Your task to perform on an android device: Empty the shopping cart on bestbuy. Image 0: 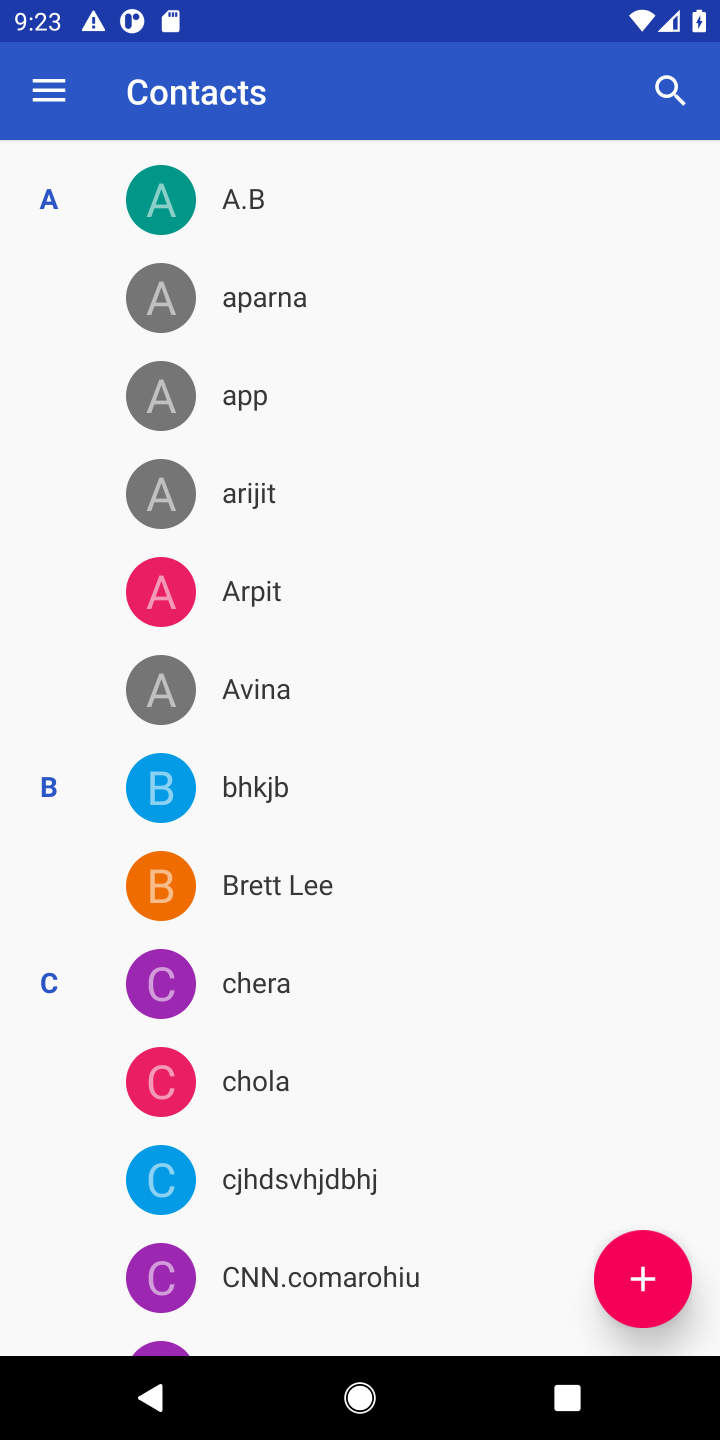
Step 0: press home button
Your task to perform on an android device: Empty the shopping cart on bestbuy. Image 1: 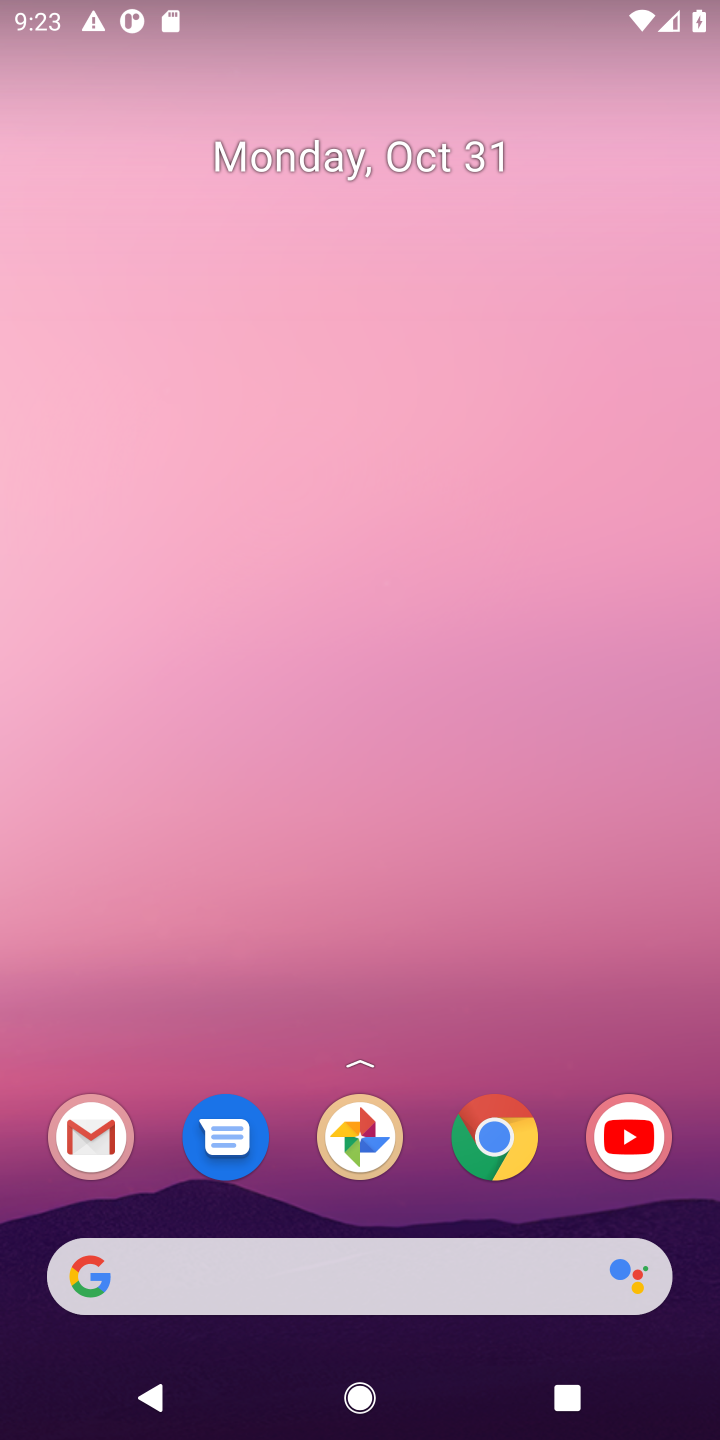
Step 1: click (505, 1146)
Your task to perform on an android device: Empty the shopping cart on bestbuy. Image 2: 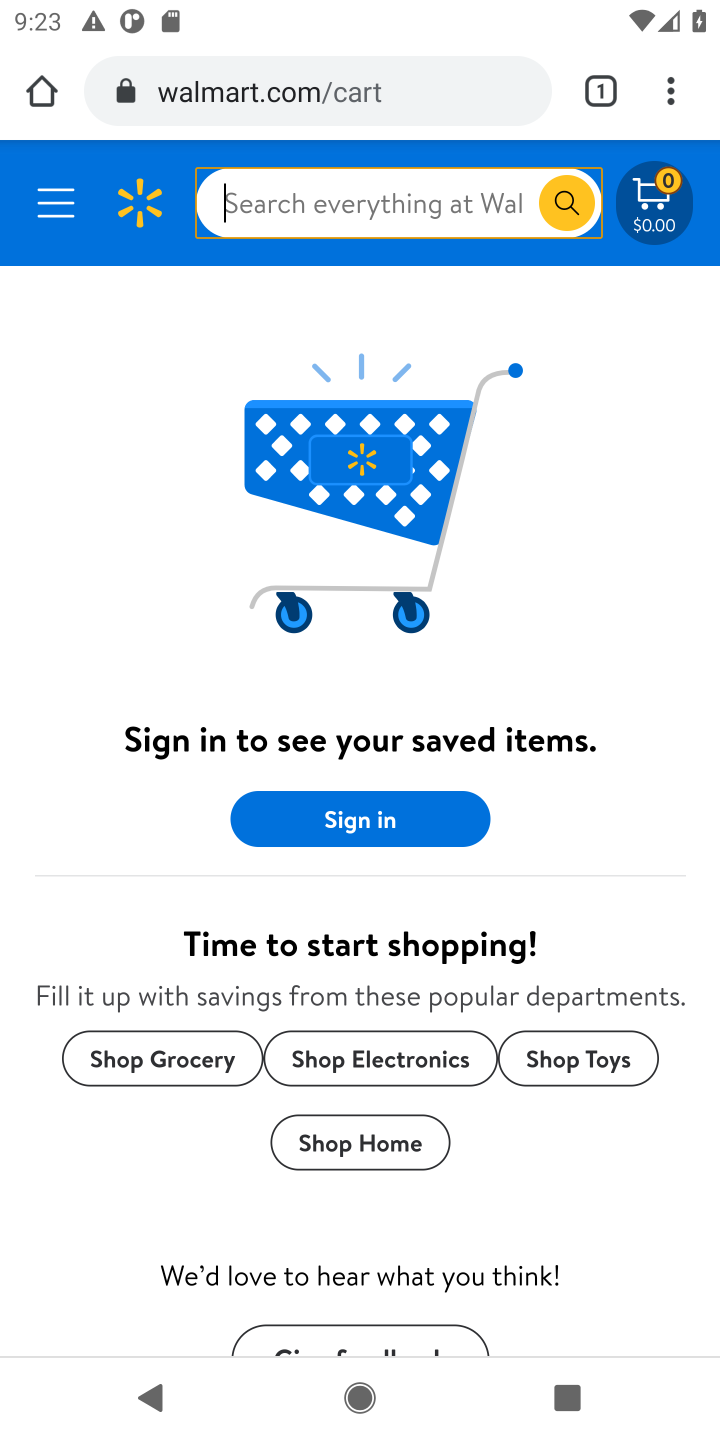
Step 2: click (313, 98)
Your task to perform on an android device: Empty the shopping cart on bestbuy. Image 3: 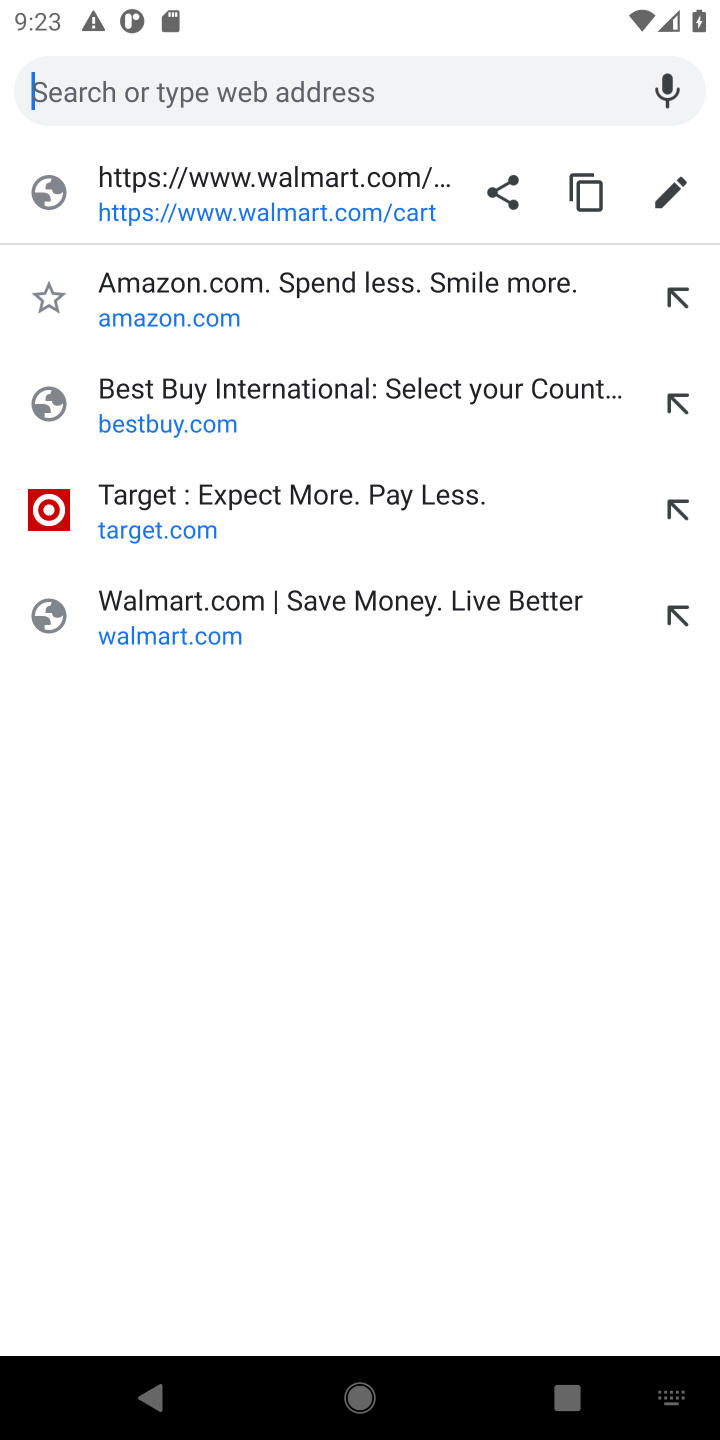
Step 3: type "bestbuy"
Your task to perform on an android device: Empty the shopping cart on bestbuy. Image 4: 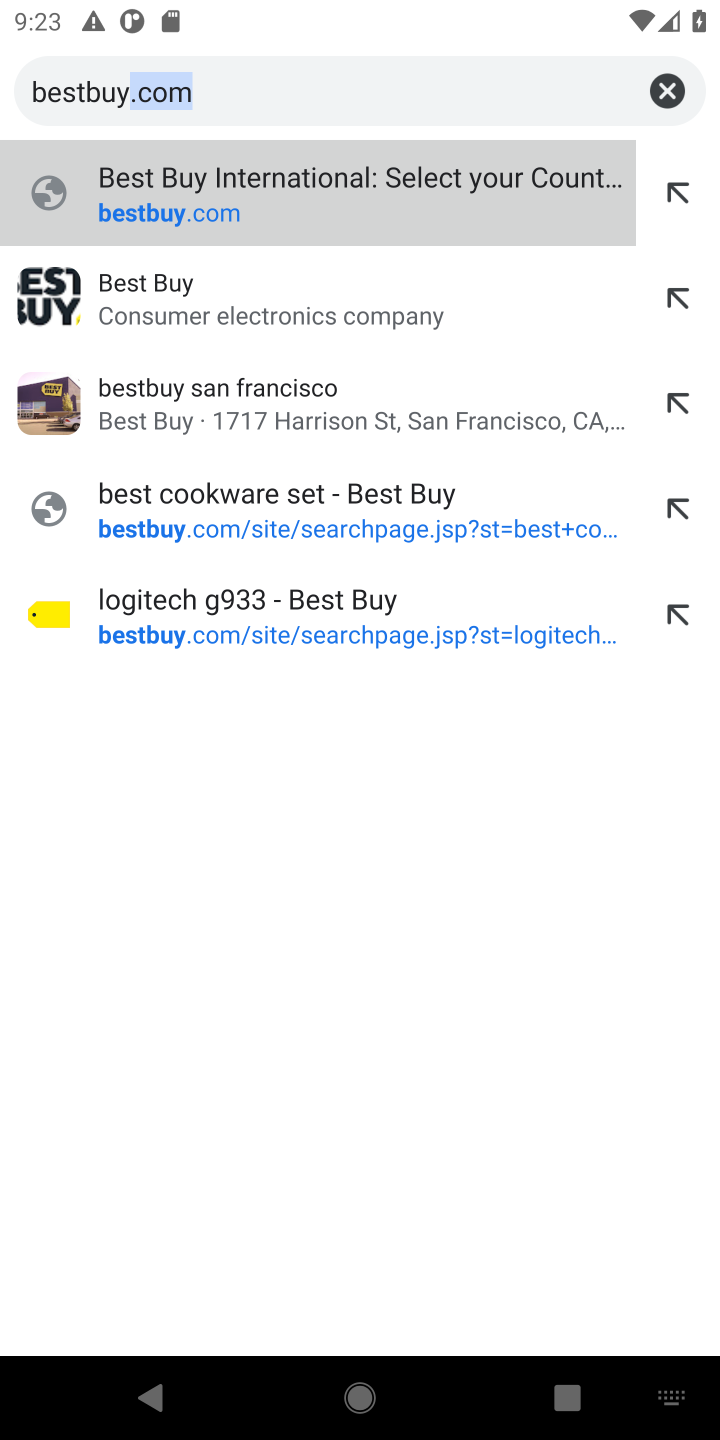
Step 4: click (160, 198)
Your task to perform on an android device: Empty the shopping cart on bestbuy. Image 5: 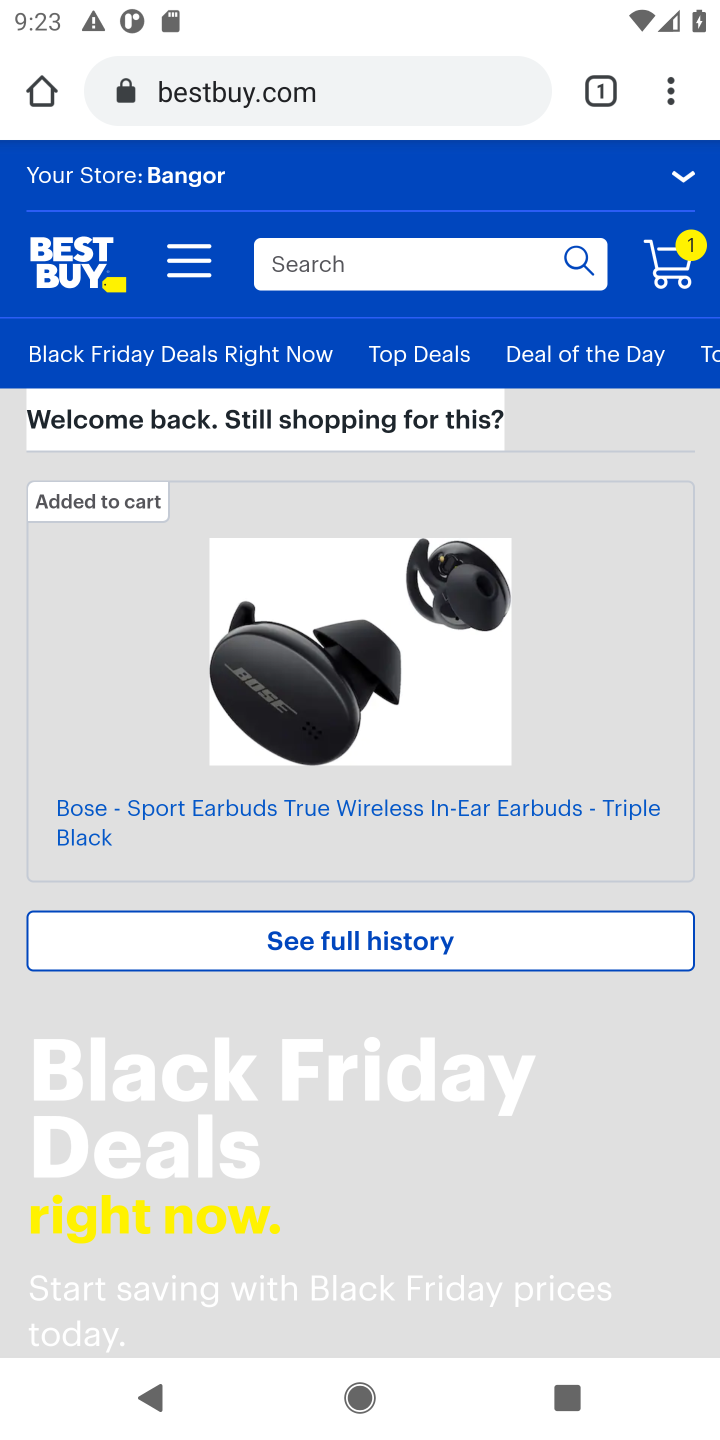
Step 5: click (669, 260)
Your task to perform on an android device: Empty the shopping cart on bestbuy. Image 6: 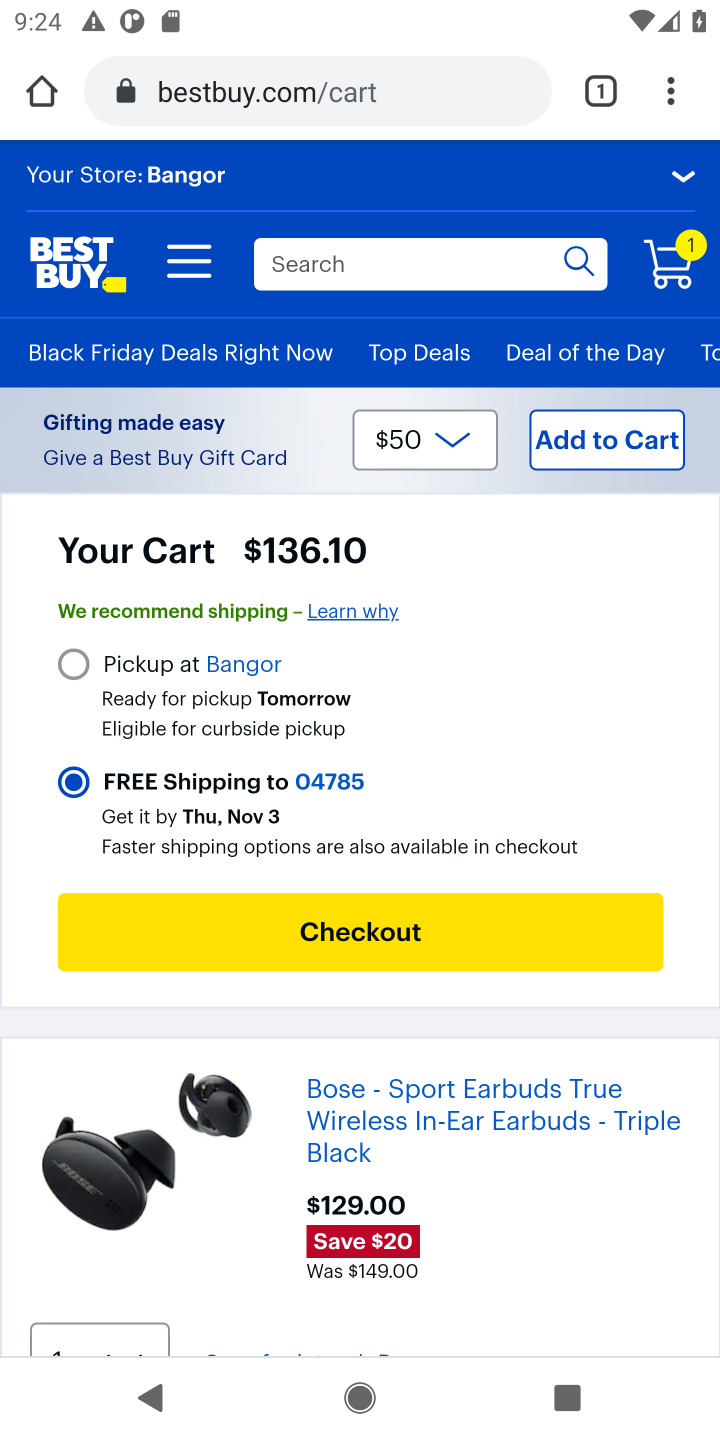
Step 6: drag from (396, 788) to (406, 546)
Your task to perform on an android device: Empty the shopping cart on bestbuy. Image 7: 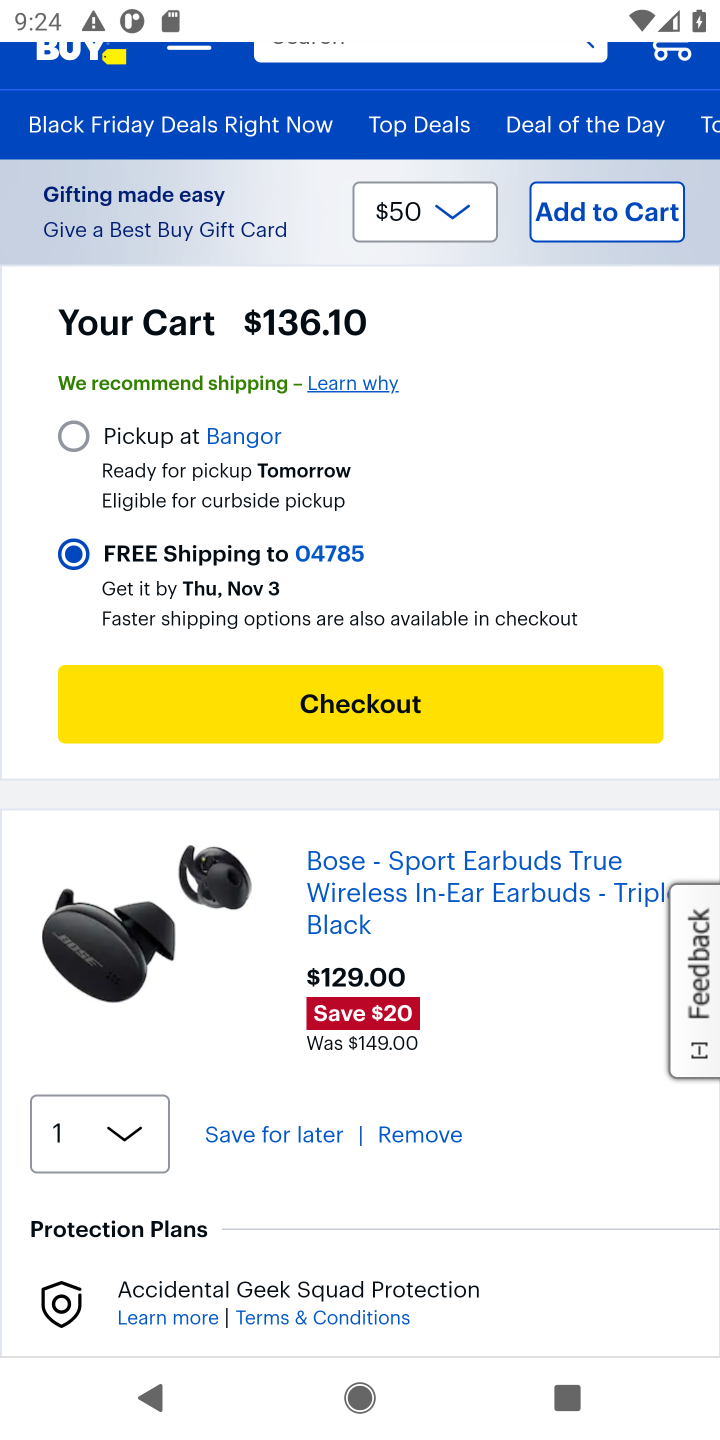
Step 7: click (441, 1141)
Your task to perform on an android device: Empty the shopping cart on bestbuy. Image 8: 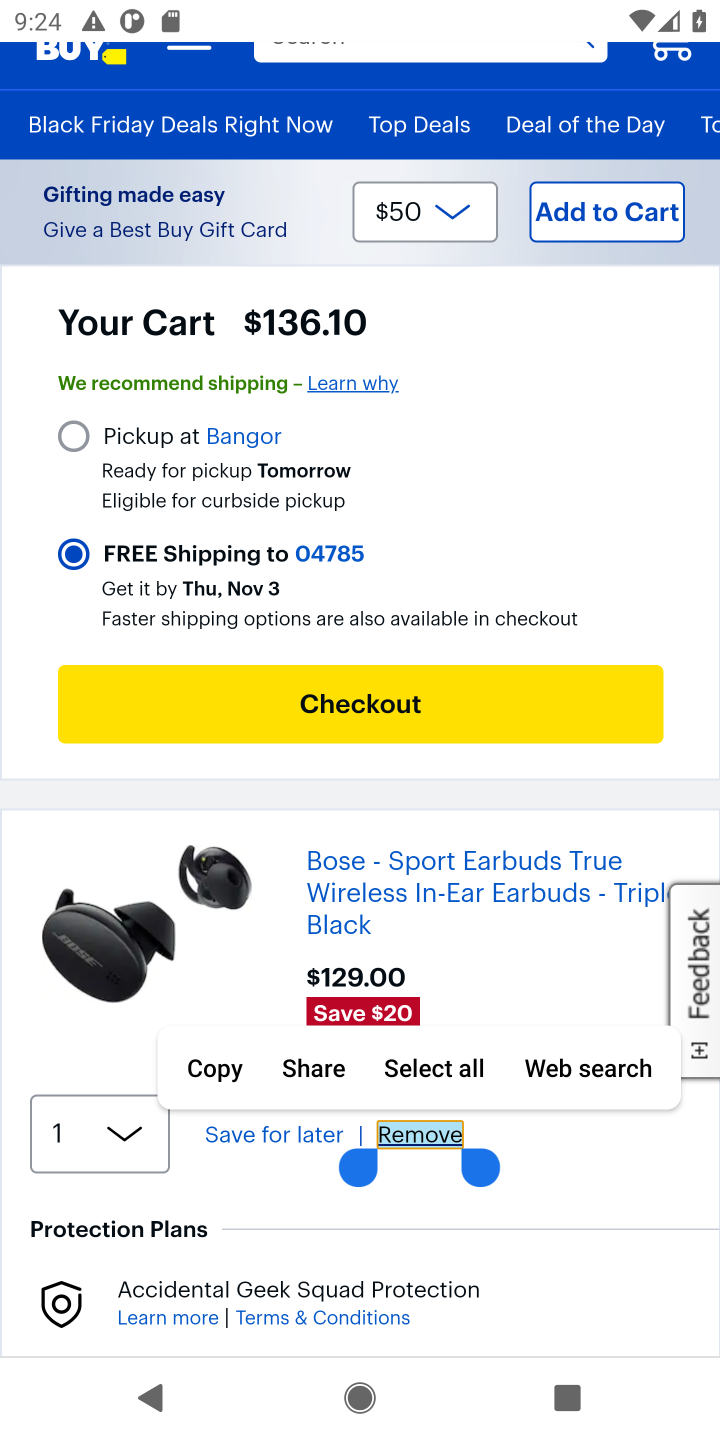
Step 8: click (441, 1141)
Your task to perform on an android device: Empty the shopping cart on bestbuy. Image 9: 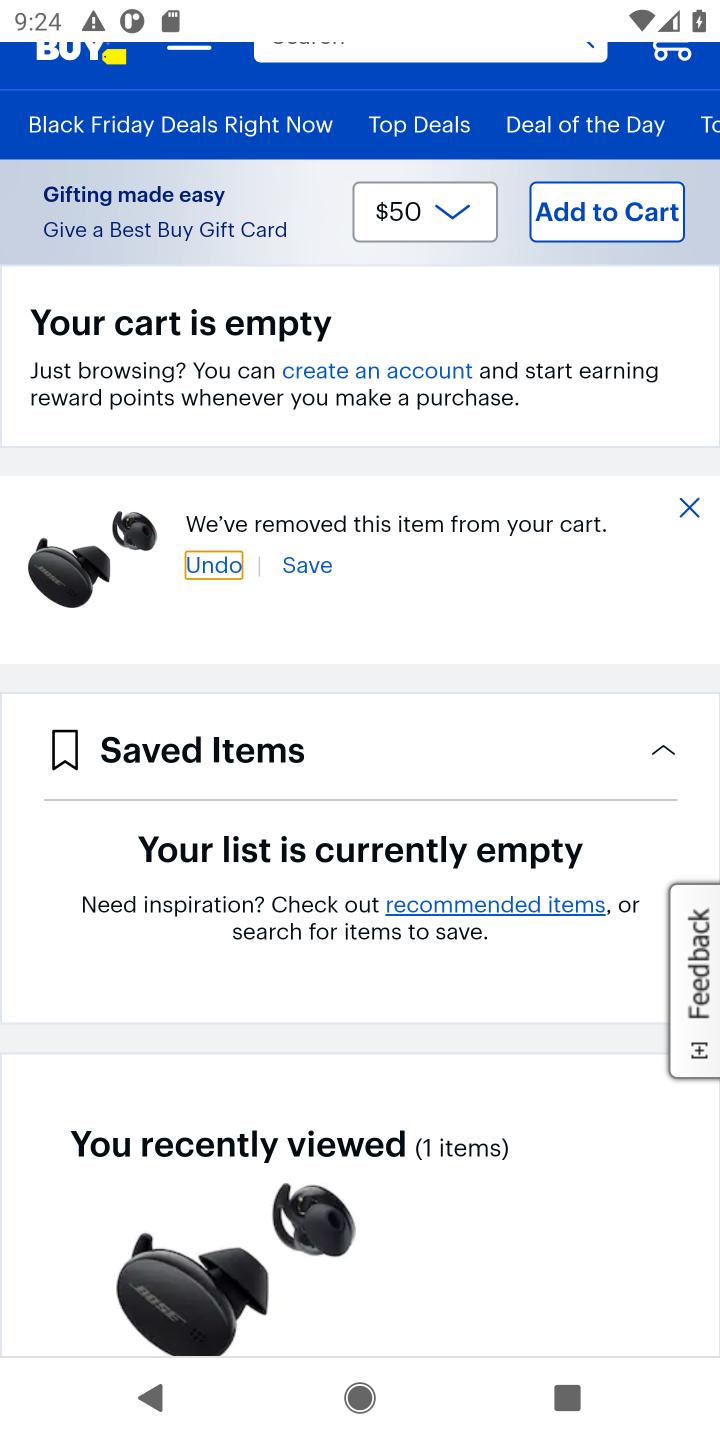
Step 9: task complete